Your task to perform on an android device: add a contact Image 0: 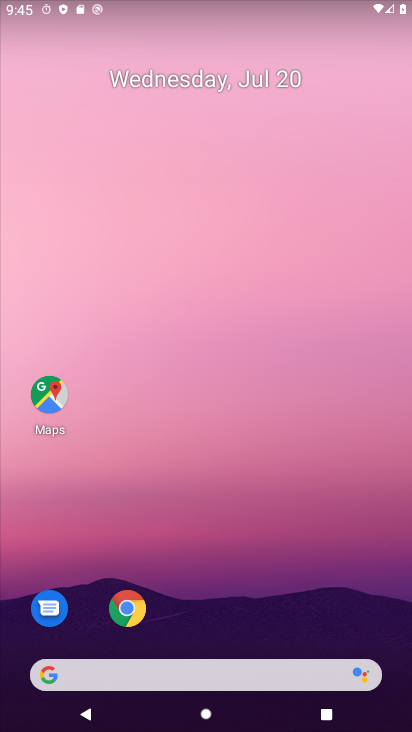
Step 0: drag from (239, 491) to (239, 80)
Your task to perform on an android device: add a contact Image 1: 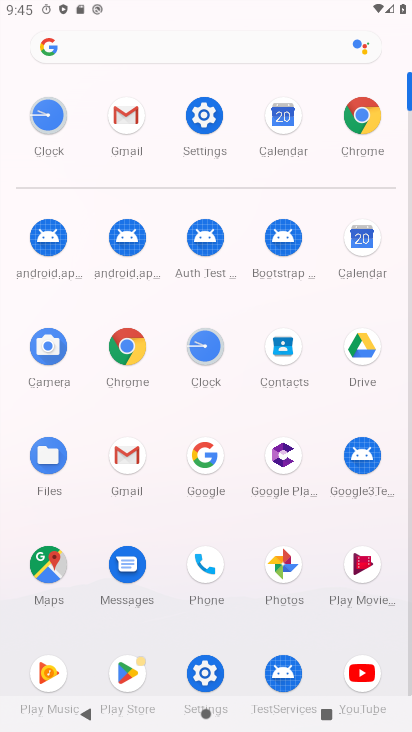
Step 1: click (279, 349)
Your task to perform on an android device: add a contact Image 2: 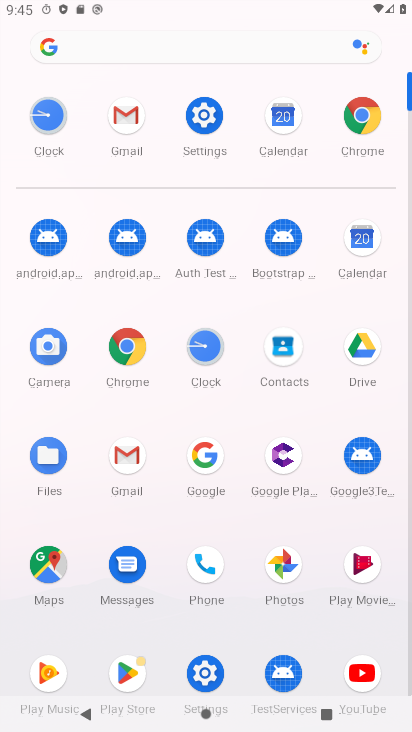
Step 2: click (281, 351)
Your task to perform on an android device: add a contact Image 3: 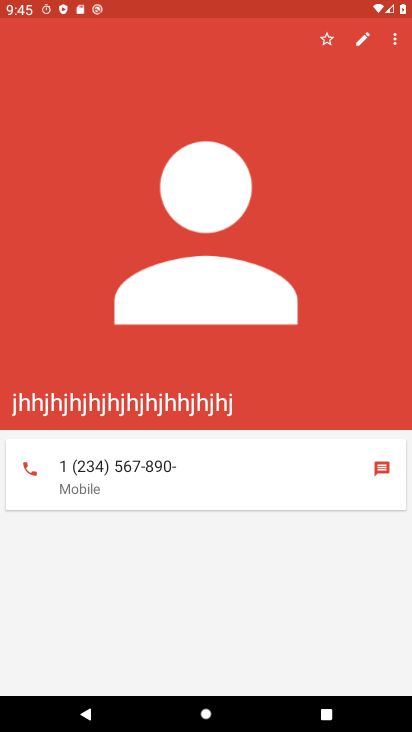
Step 3: press back button
Your task to perform on an android device: add a contact Image 4: 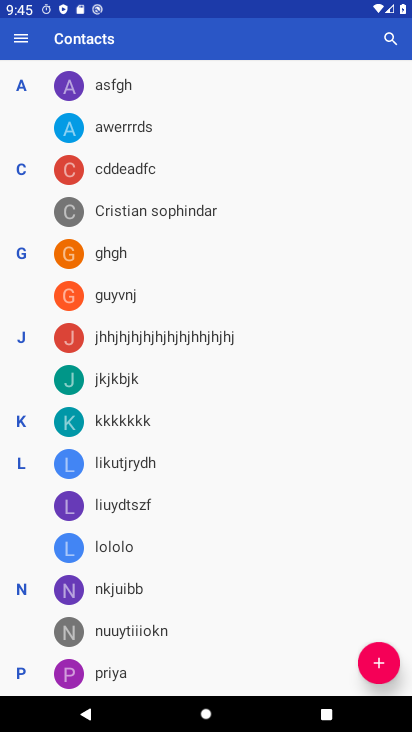
Step 4: click (386, 654)
Your task to perform on an android device: add a contact Image 5: 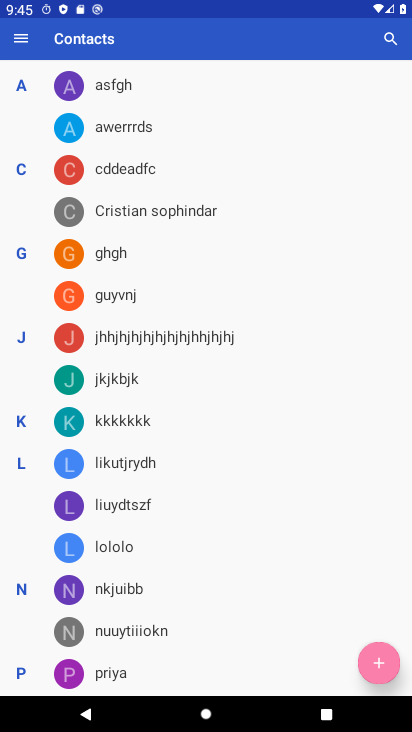
Step 5: click (374, 662)
Your task to perform on an android device: add a contact Image 6: 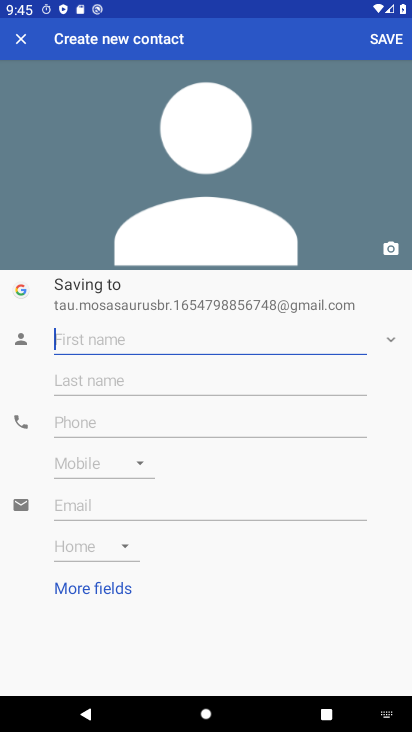
Step 6: type " j nz jn kkj kj "
Your task to perform on an android device: add a contact Image 7: 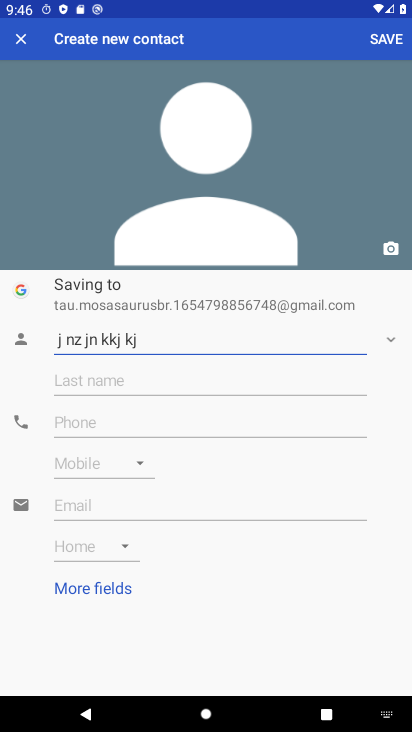
Step 7: click (77, 427)
Your task to perform on an android device: add a contact Image 8: 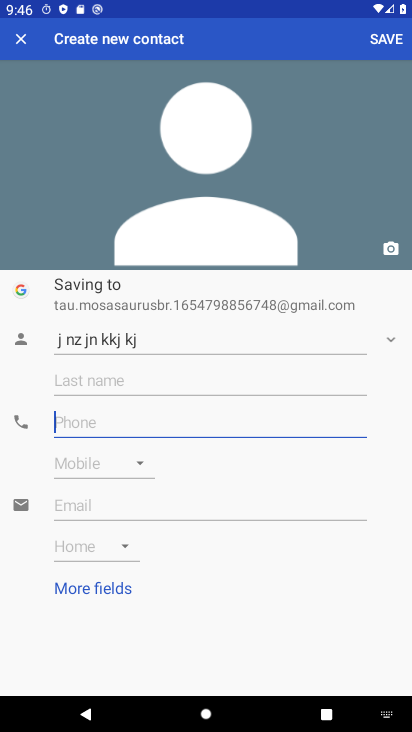
Step 8: click (77, 427)
Your task to perform on an android device: add a contact Image 9: 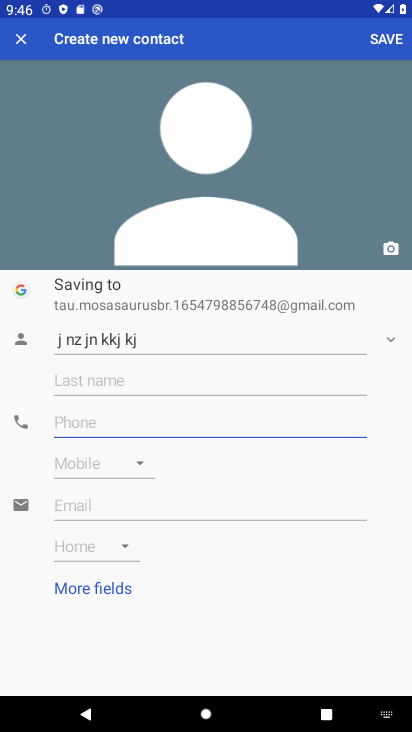
Step 9: type "8789793878937"
Your task to perform on an android device: add a contact Image 10: 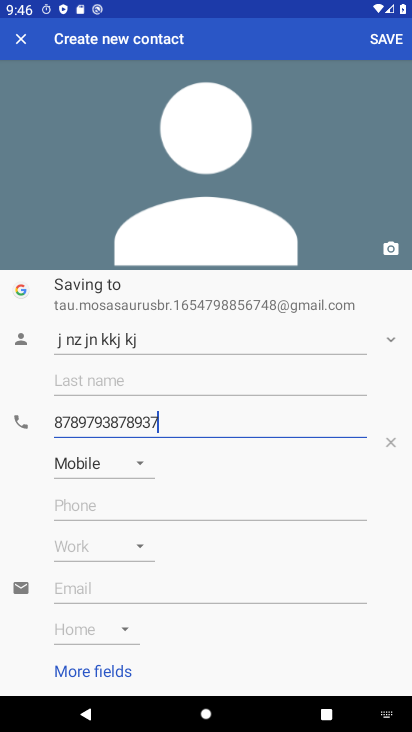
Step 10: click (396, 40)
Your task to perform on an android device: add a contact Image 11: 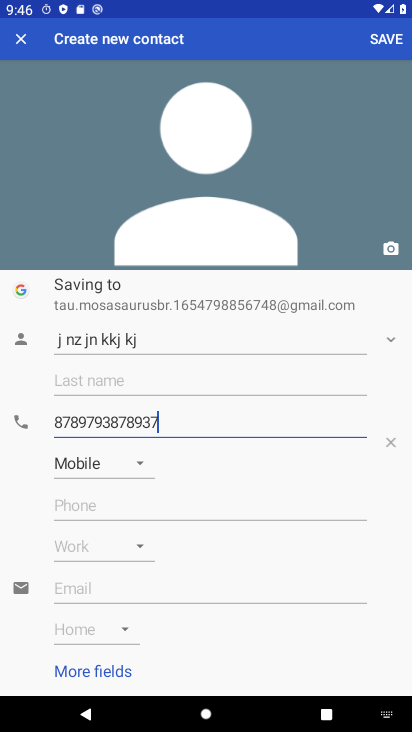
Step 11: click (394, 45)
Your task to perform on an android device: add a contact Image 12: 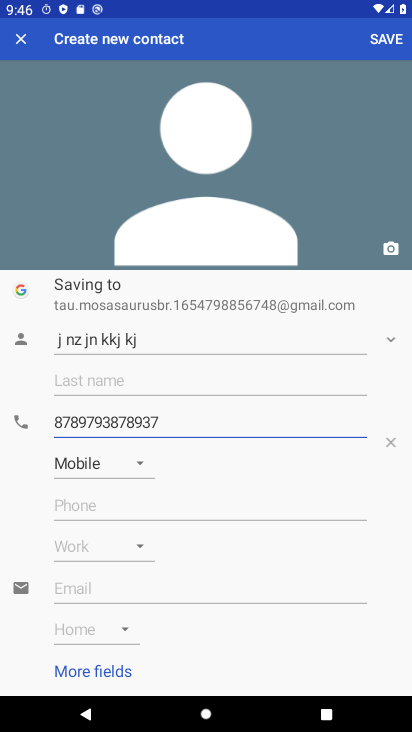
Step 12: click (394, 45)
Your task to perform on an android device: add a contact Image 13: 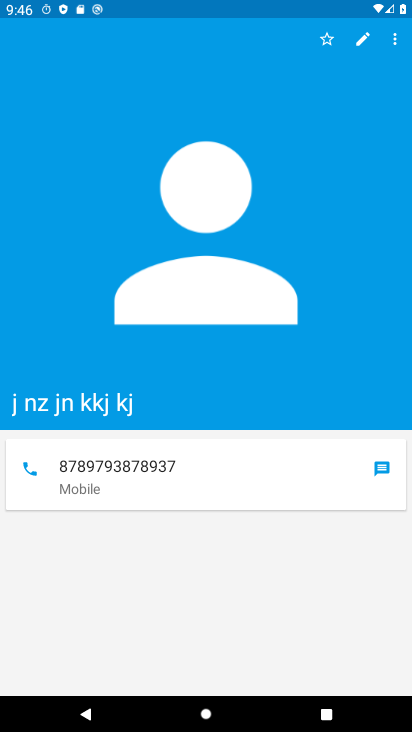
Step 13: task complete